Your task to perform on an android device: find photos in the google photos app Image 0: 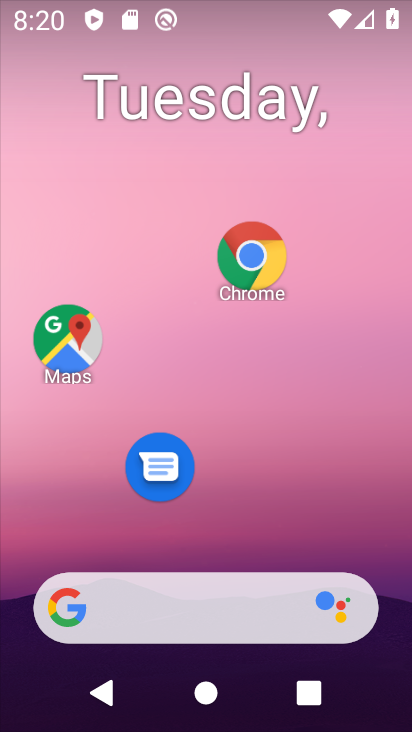
Step 0: drag from (251, 496) to (221, 100)
Your task to perform on an android device: find photos in the google photos app Image 1: 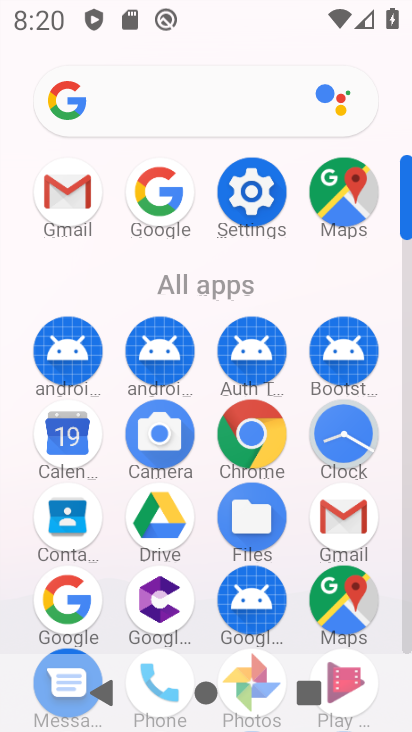
Step 1: drag from (301, 474) to (307, 248)
Your task to perform on an android device: find photos in the google photos app Image 2: 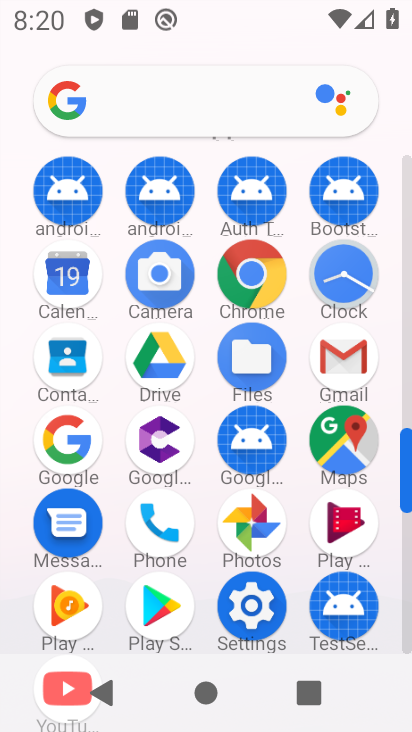
Step 2: click (256, 518)
Your task to perform on an android device: find photos in the google photos app Image 3: 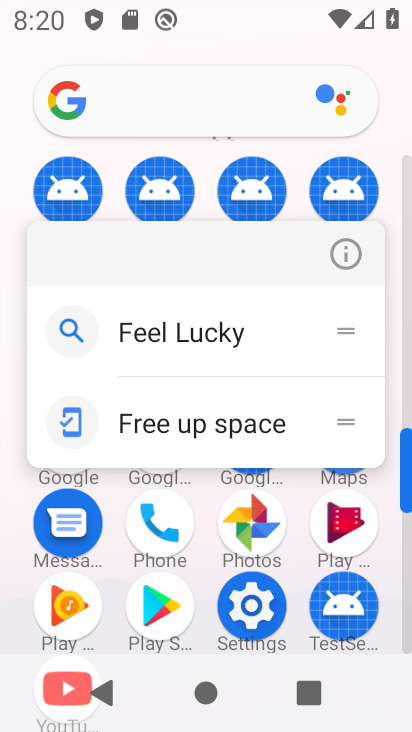
Step 3: click (247, 529)
Your task to perform on an android device: find photos in the google photos app Image 4: 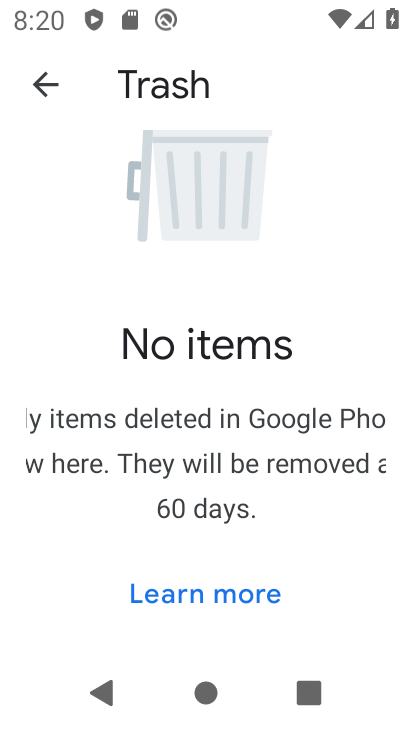
Step 4: task complete